Your task to perform on an android device: toggle translation in the chrome app Image 0: 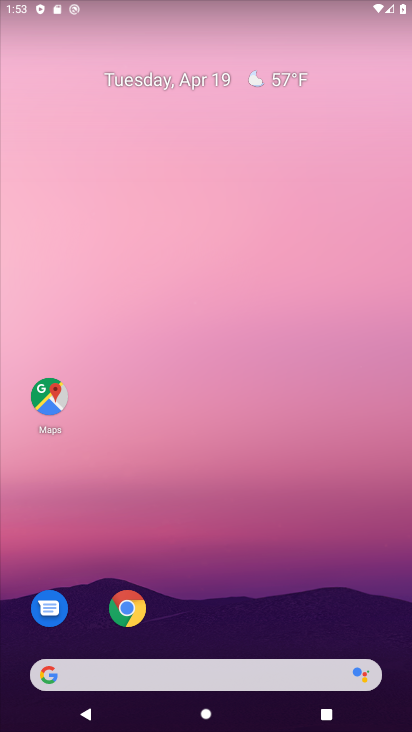
Step 0: click (289, 129)
Your task to perform on an android device: toggle translation in the chrome app Image 1: 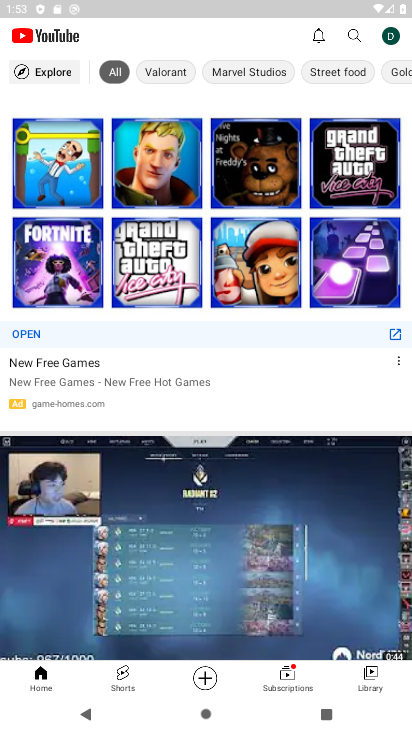
Step 1: press home button
Your task to perform on an android device: toggle translation in the chrome app Image 2: 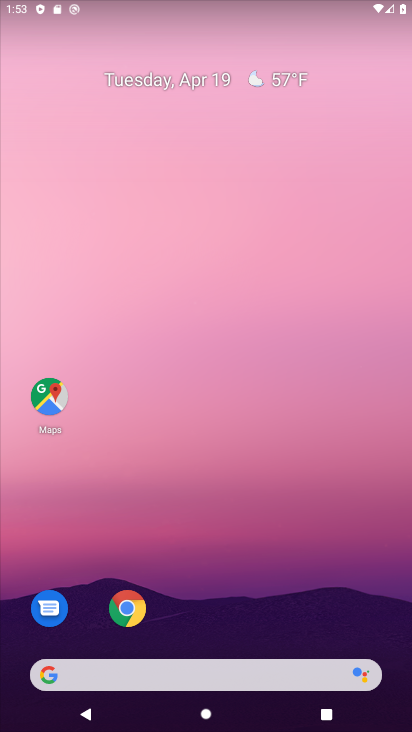
Step 2: click (128, 600)
Your task to perform on an android device: toggle translation in the chrome app Image 3: 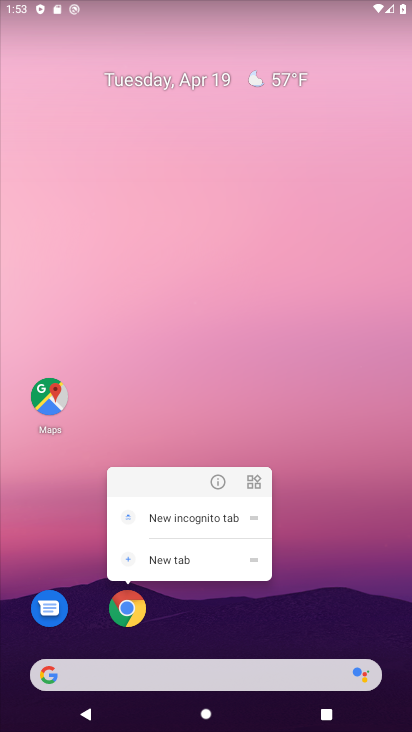
Step 3: click (135, 603)
Your task to perform on an android device: toggle translation in the chrome app Image 4: 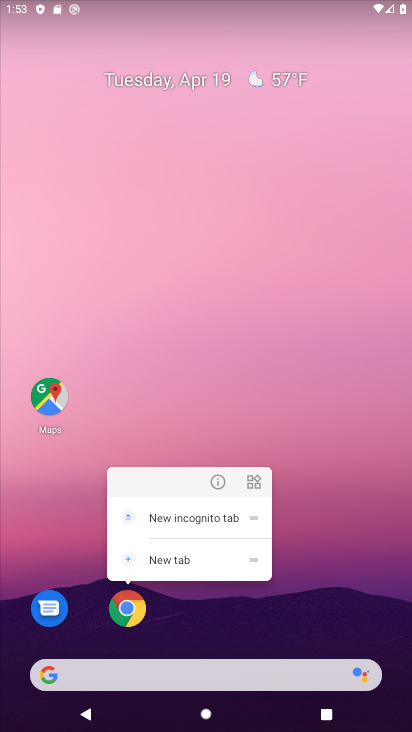
Step 4: click (135, 603)
Your task to perform on an android device: toggle translation in the chrome app Image 5: 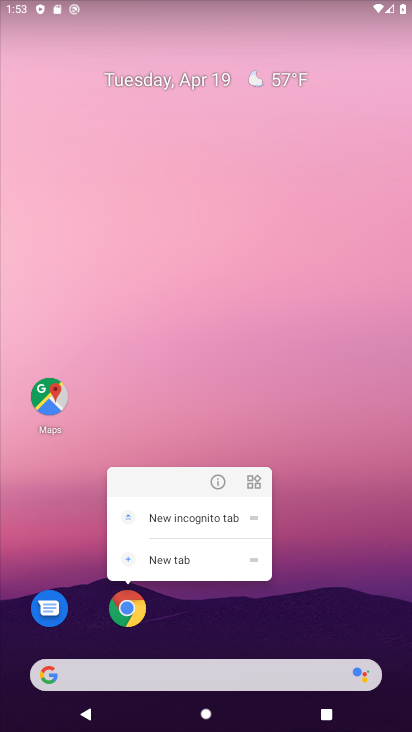
Step 5: click (135, 602)
Your task to perform on an android device: toggle translation in the chrome app Image 6: 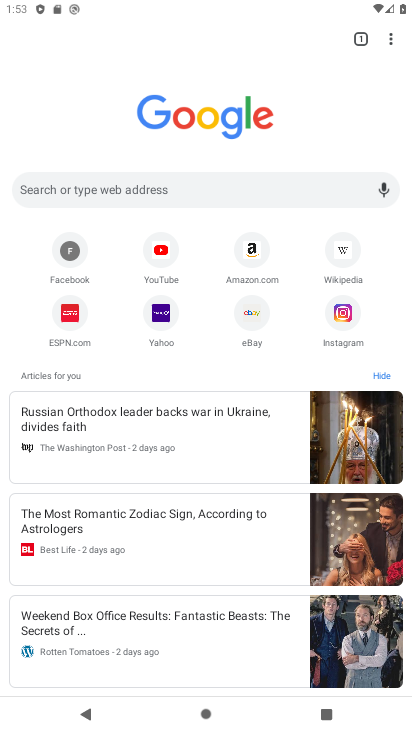
Step 6: click (397, 35)
Your task to perform on an android device: toggle translation in the chrome app Image 7: 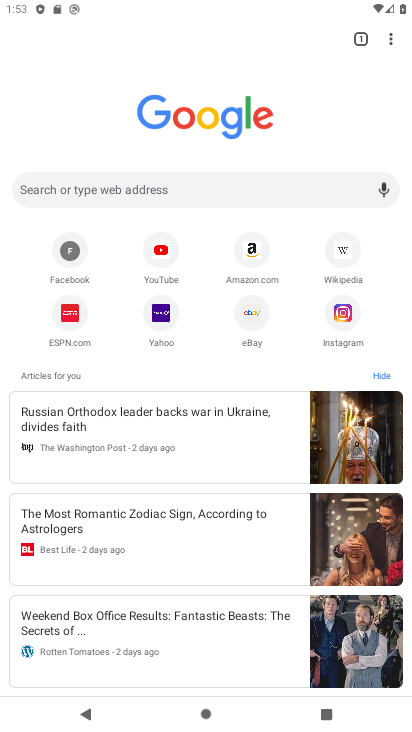
Step 7: click (390, 35)
Your task to perform on an android device: toggle translation in the chrome app Image 8: 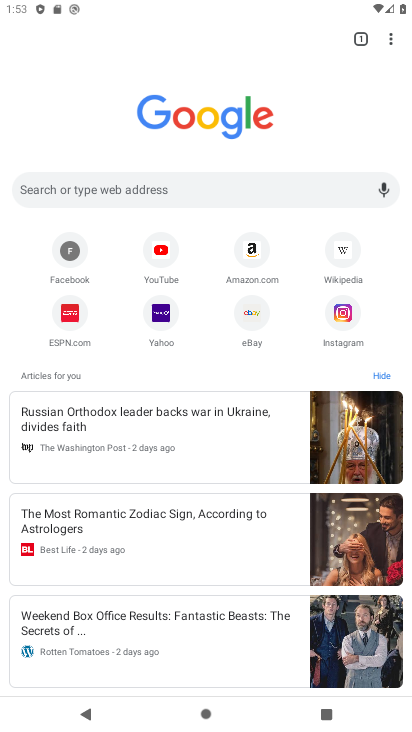
Step 8: click (400, 34)
Your task to perform on an android device: toggle translation in the chrome app Image 9: 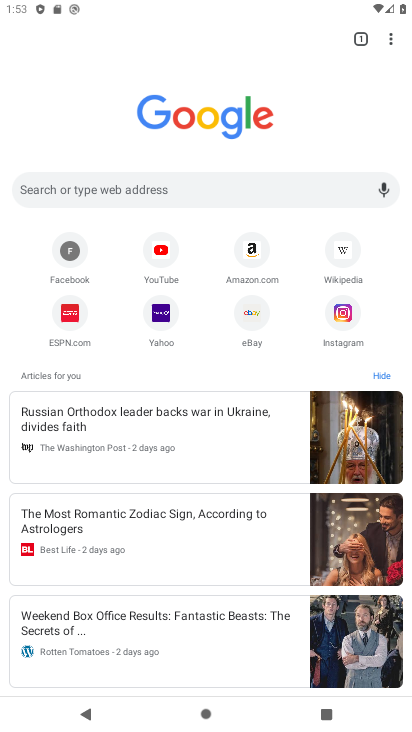
Step 9: click (391, 38)
Your task to perform on an android device: toggle translation in the chrome app Image 10: 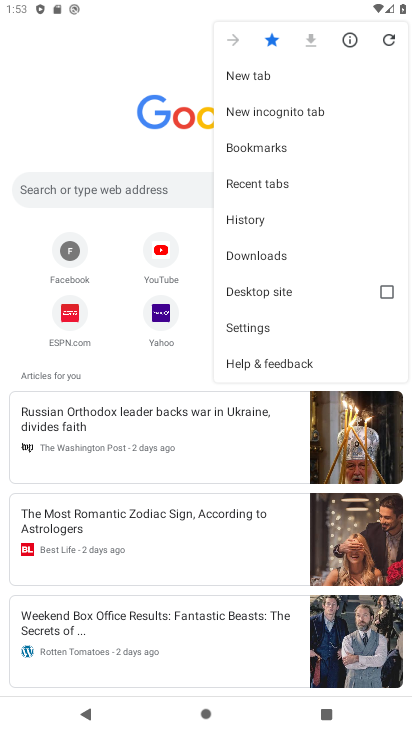
Step 10: click (272, 323)
Your task to perform on an android device: toggle translation in the chrome app Image 11: 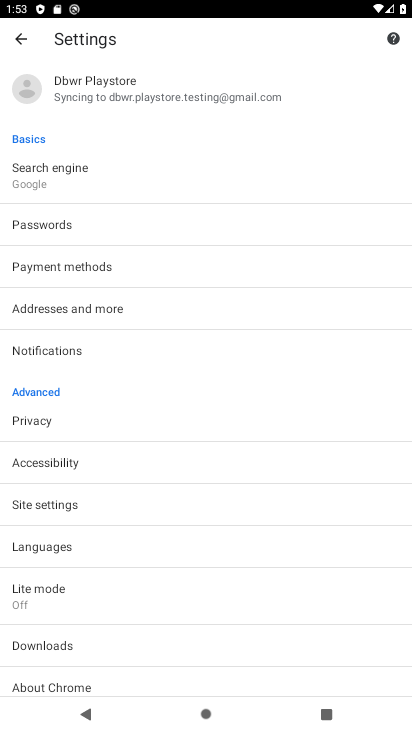
Step 11: click (123, 549)
Your task to perform on an android device: toggle translation in the chrome app Image 12: 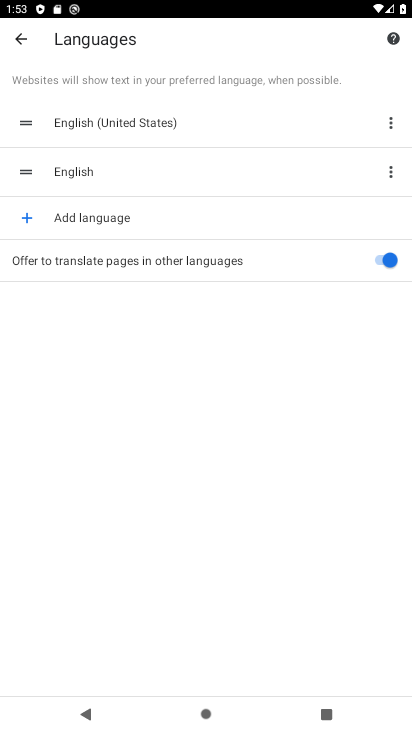
Step 12: click (371, 259)
Your task to perform on an android device: toggle translation in the chrome app Image 13: 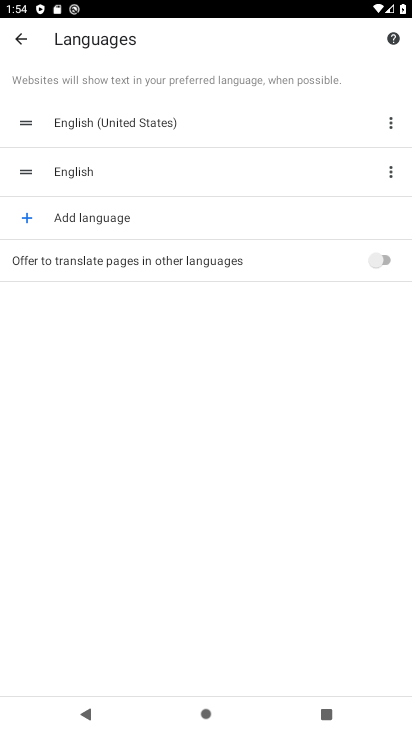
Step 13: task complete